Your task to perform on an android device: Do I have any events tomorrow? Image 0: 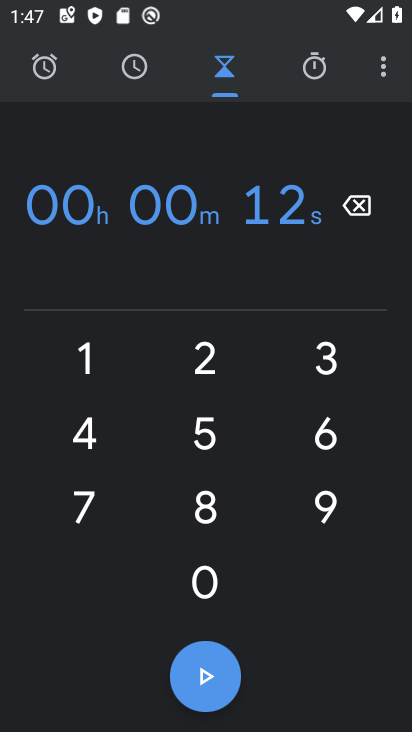
Step 0: press home button
Your task to perform on an android device: Do I have any events tomorrow? Image 1: 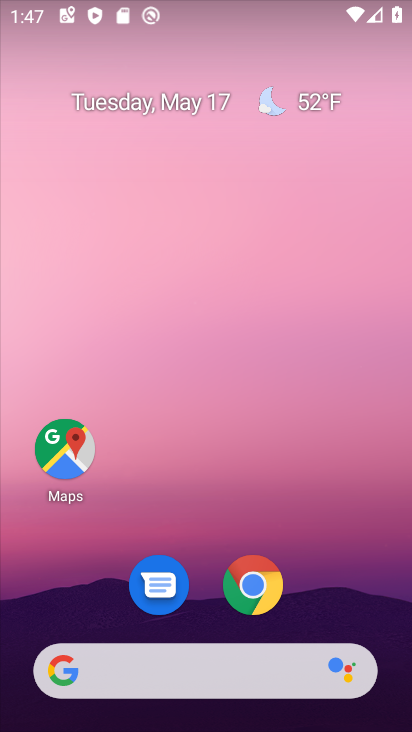
Step 1: drag from (284, 542) to (271, 66)
Your task to perform on an android device: Do I have any events tomorrow? Image 2: 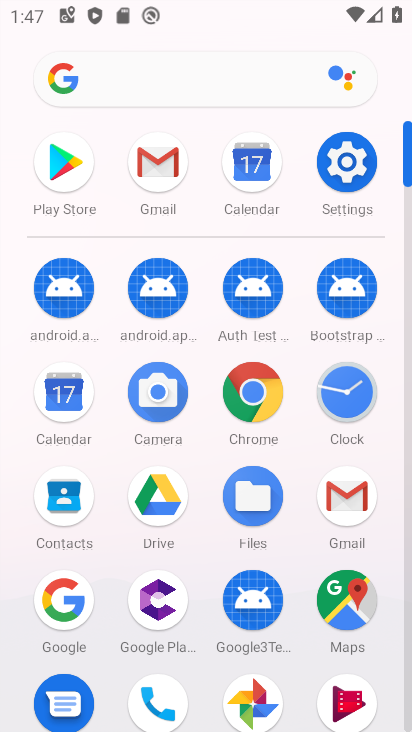
Step 2: click (256, 159)
Your task to perform on an android device: Do I have any events tomorrow? Image 3: 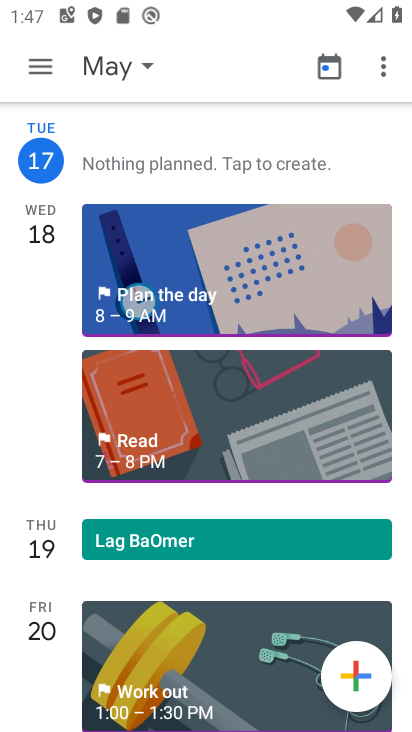
Step 3: task complete